Your task to perform on an android device: Is it going to rain today? Image 0: 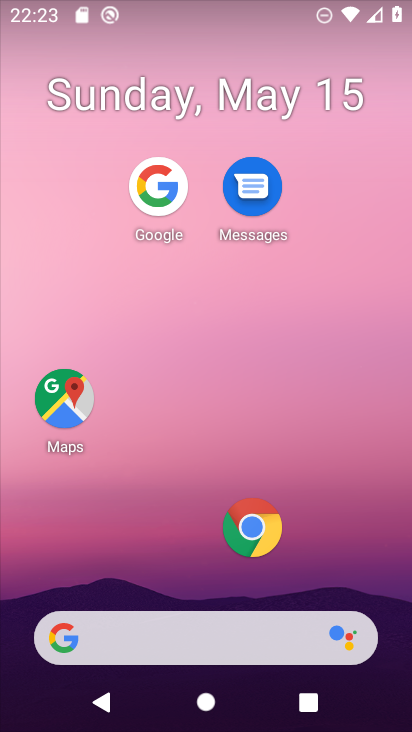
Step 0: press home button
Your task to perform on an android device: Is it going to rain today? Image 1: 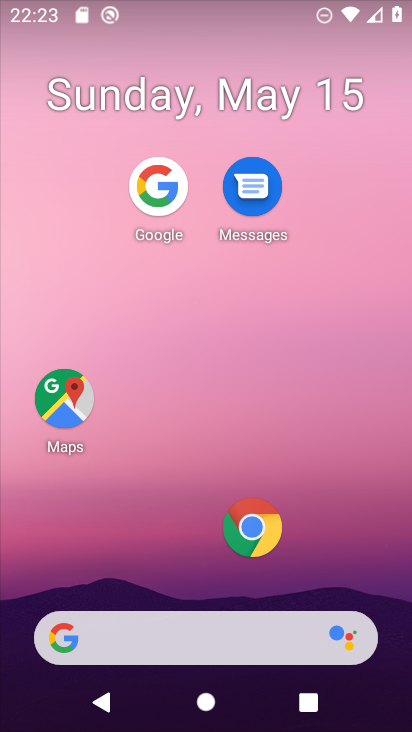
Step 1: click (71, 642)
Your task to perform on an android device: Is it going to rain today? Image 2: 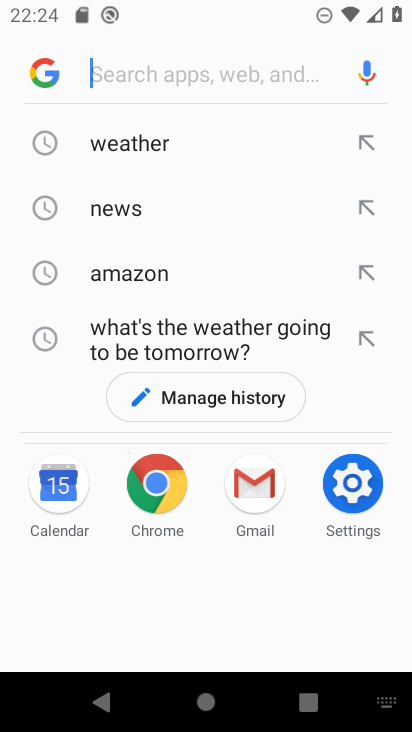
Step 2: click (165, 148)
Your task to perform on an android device: Is it going to rain today? Image 3: 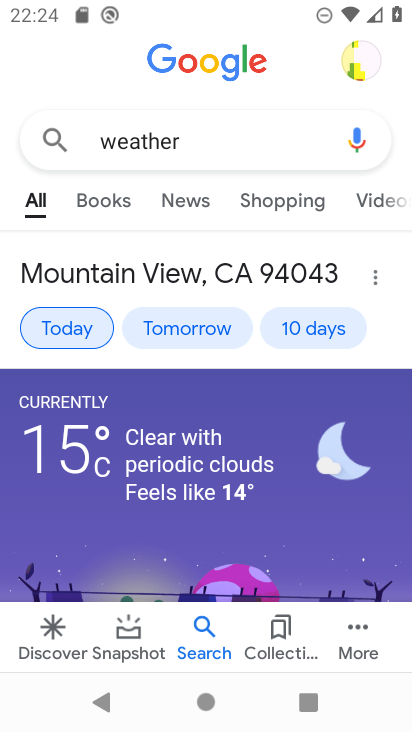
Step 3: task complete